Your task to perform on an android device: turn off airplane mode Image 0: 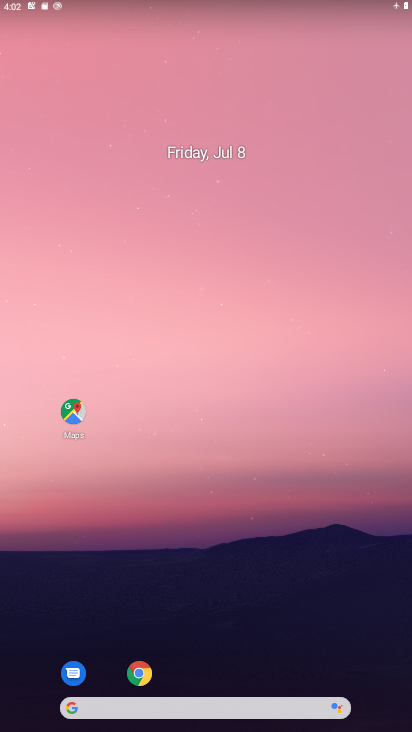
Step 0: drag from (241, 674) to (204, 36)
Your task to perform on an android device: turn off airplane mode Image 1: 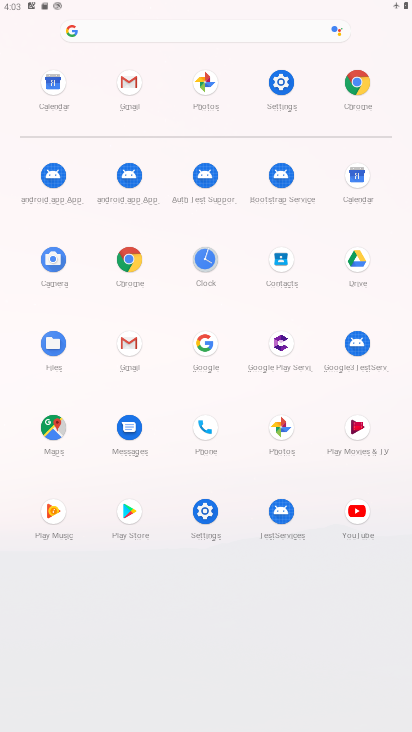
Step 1: click (285, 84)
Your task to perform on an android device: turn off airplane mode Image 2: 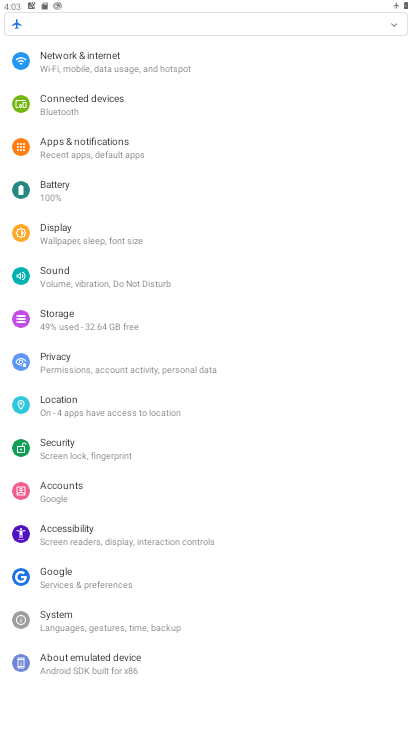
Step 2: click (59, 73)
Your task to perform on an android device: turn off airplane mode Image 3: 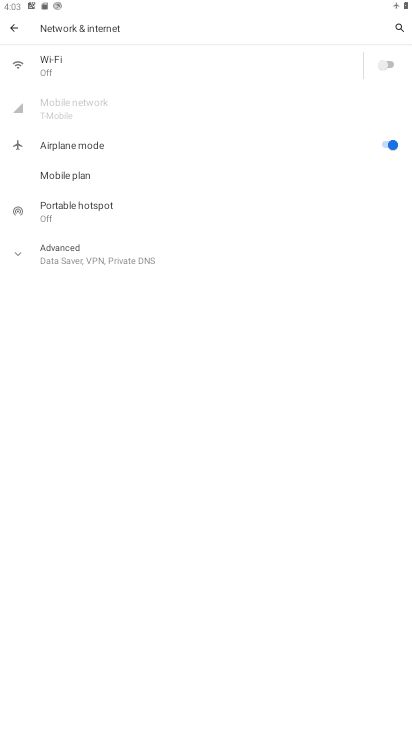
Step 3: click (393, 147)
Your task to perform on an android device: turn off airplane mode Image 4: 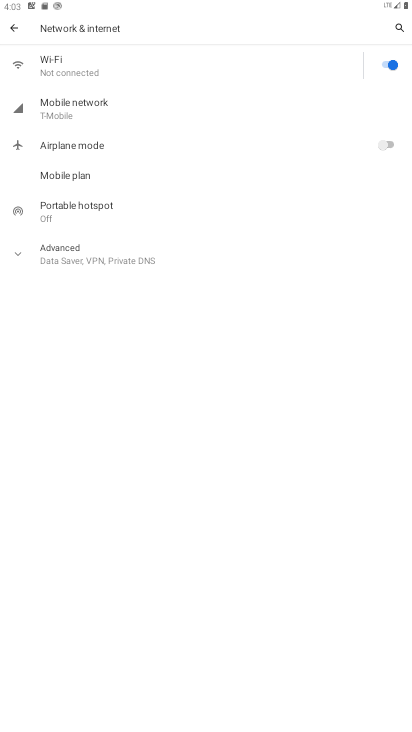
Step 4: task complete